Your task to perform on an android device: Open the calendar and show me this week's events? Image 0: 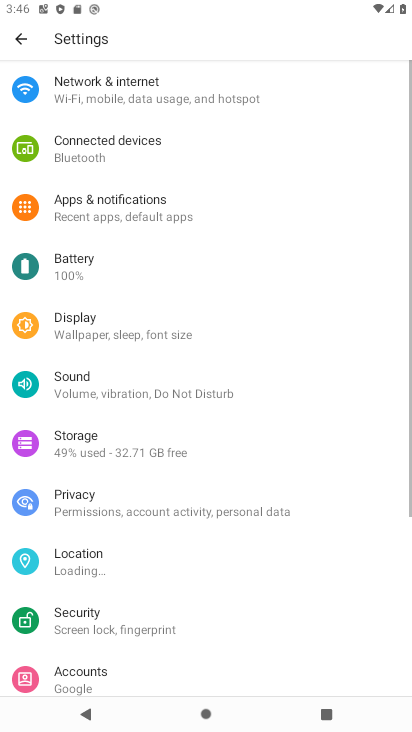
Step 0: press home button
Your task to perform on an android device: Open the calendar and show me this week's events? Image 1: 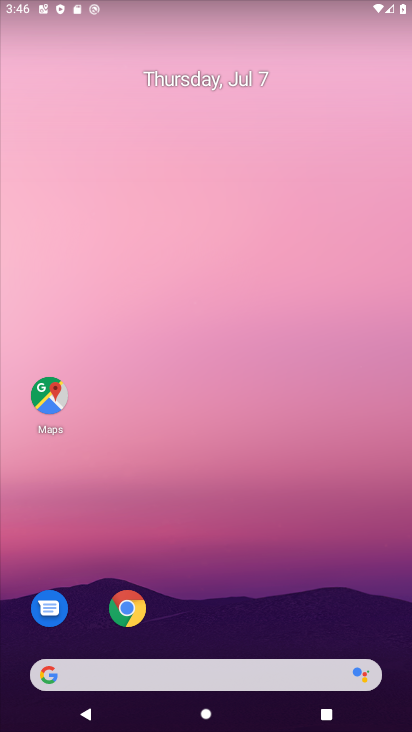
Step 1: drag from (204, 622) to (184, 151)
Your task to perform on an android device: Open the calendar and show me this week's events? Image 2: 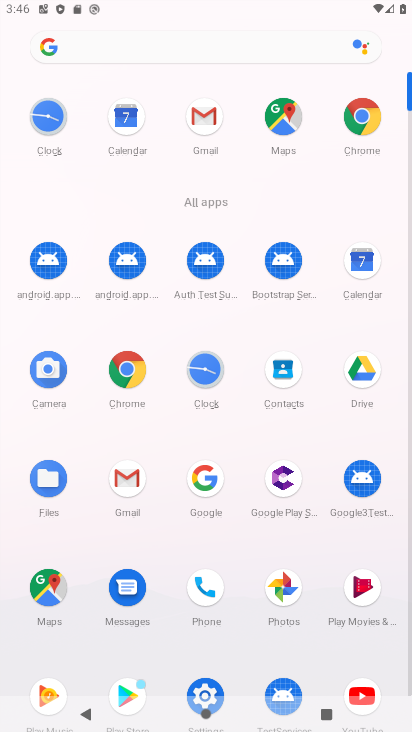
Step 2: click (359, 270)
Your task to perform on an android device: Open the calendar and show me this week's events? Image 3: 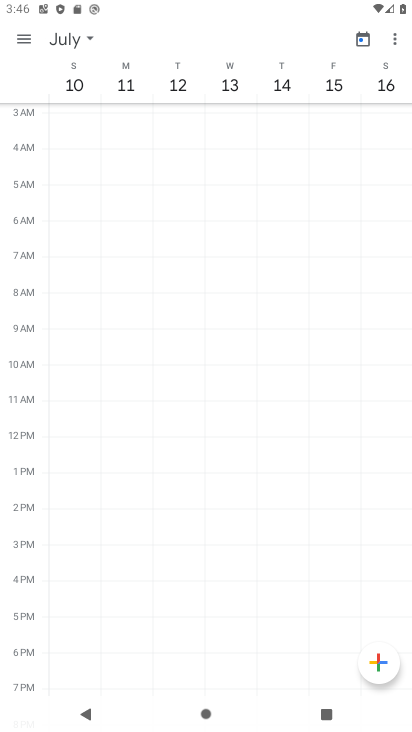
Step 3: task complete